Your task to perform on an android device: toggle pop-ups in chrome Image 0: 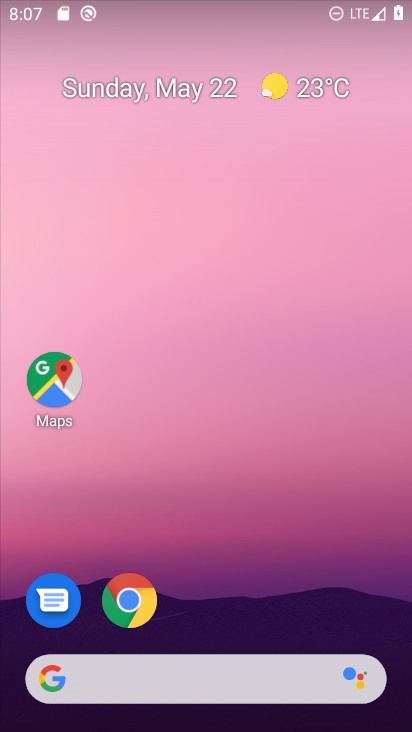
Step 0: drag from (322, 593) to (218, 14)
Your task to perform on an android device: toggle pop-ups in chrome Image 1: 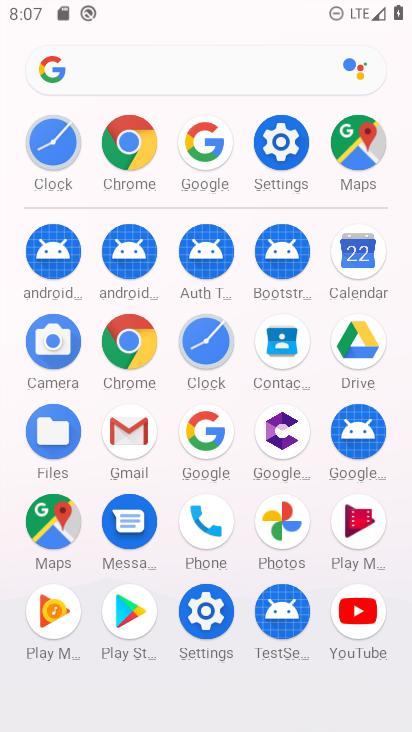
Step 1: click (135, 162)
Your task to perform on an android device: toggle pop-ups in chrome Image 2: 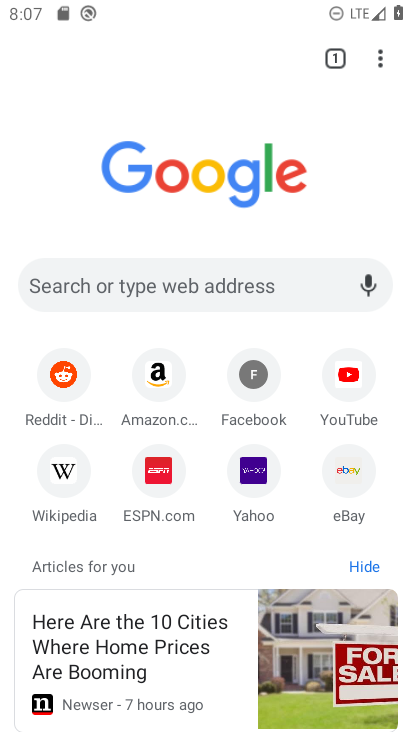
Step 2: click (377, 55)
Your task to perform on an android device: toggle pop-ups in chrome Image 3: 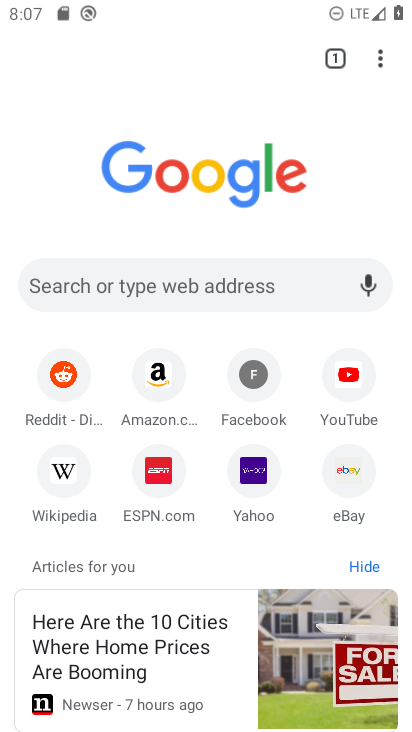
Step 3: click (382, 53)
Your task to perform on an android device: toggle pop-ups in chrome Image 4: 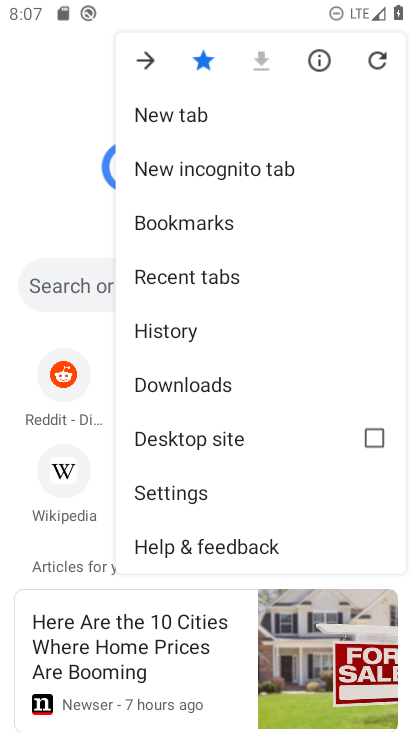
Step 4: click (207, 489)
Your task to perform on an android device: toggle pop-ups in chrome Image 5: 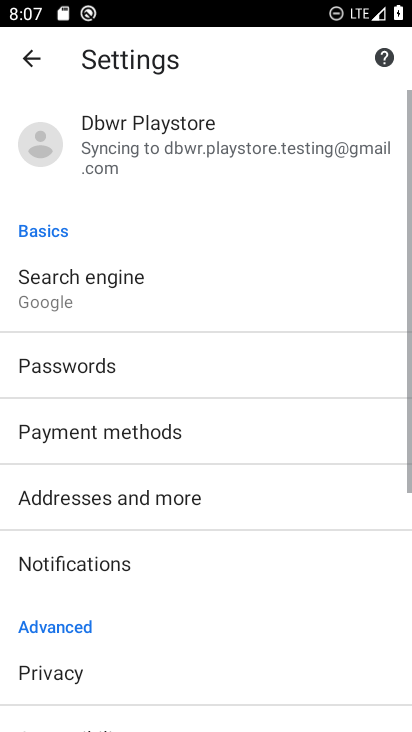
Step 5: drag from (146, 669) to (185, 159)
Your task to perform on an android device: toggle pop-ups in chrome Image 6: 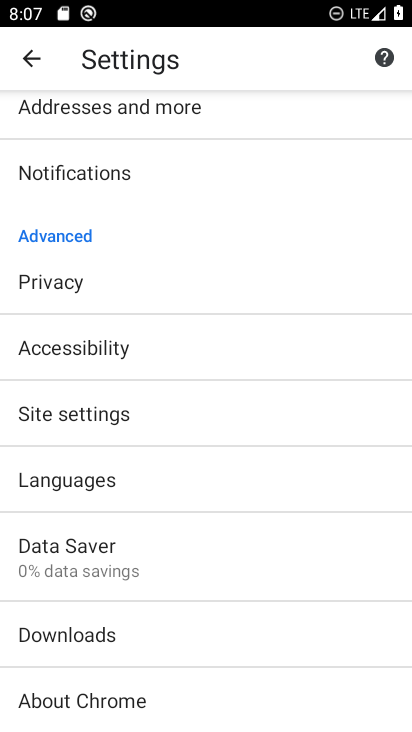
Step 6: click (189, 421)
Your task to perform on an android device: toggle pop-ups in chrome Image 7: 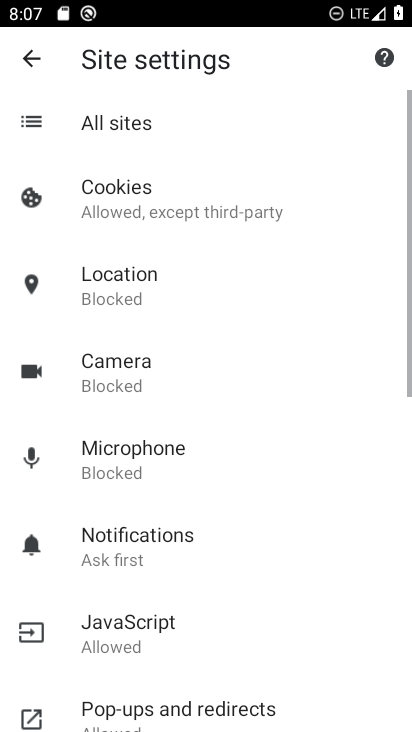
Step 7: click (219, 699)
Your task to perform on an android device: toggle pop-ups in chrome Image 8: 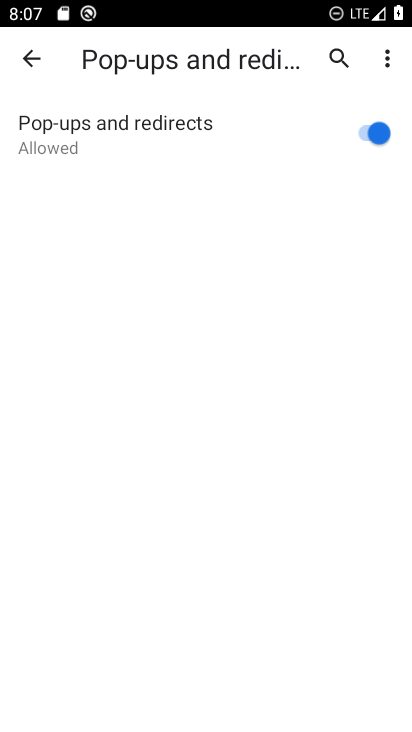
Step 8: click (349, 126)
Your task to perform on an android device: toggle pop-ups in chrome Image 9: 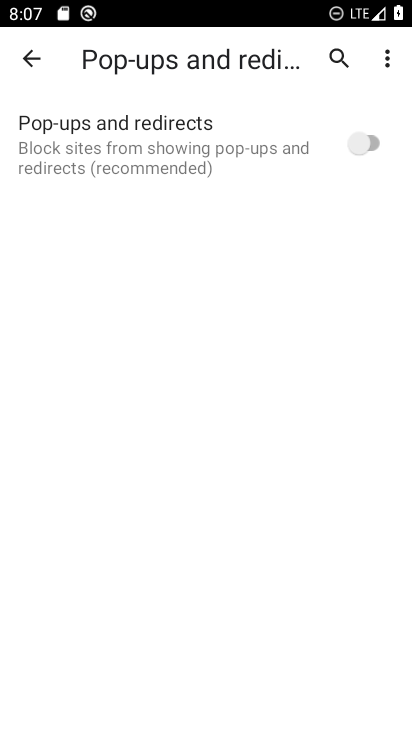
Step 9: task complete